Your task to perform on an android device: When is my next appointment? Image 0: 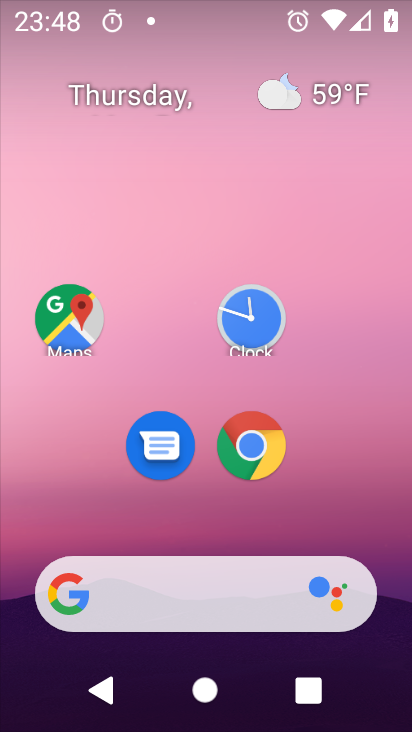
Step 0: drag from (236, 575) to (206, 0)
Your task to perform on an android device: When is my next appointment? Image 1: 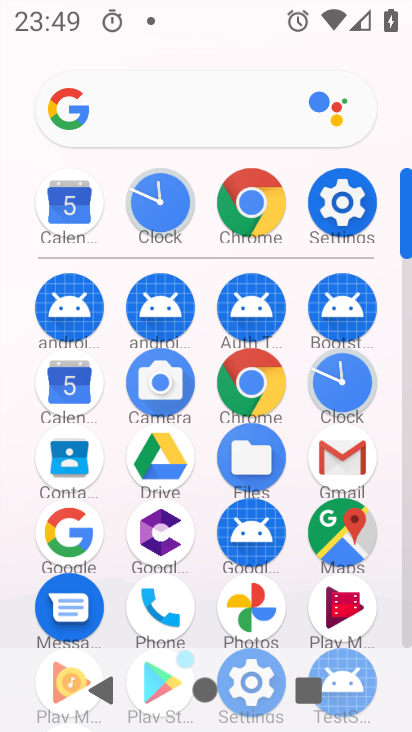
Step 1: click (83, 375)
Your task to perform on an android device: When is my next appointment? Image 2: 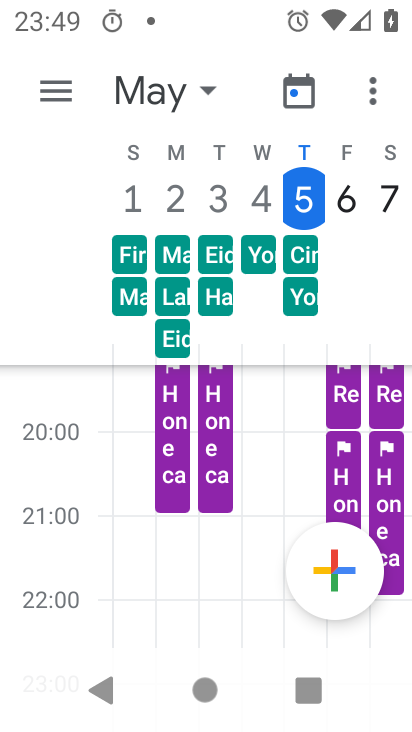
Step 2: click (71, 94)
Your task to perform on an android device: When is my next appointment? Image 3: 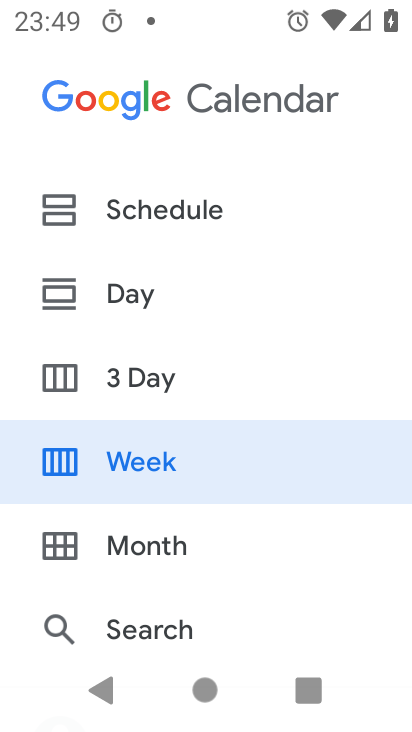
Step 3: click (167, 211)
Your task to perform on an android device: When is my next appointment? Image 4: 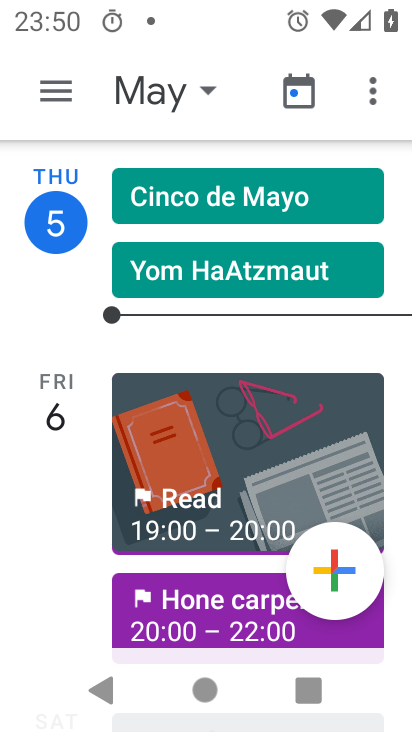
Step 4: task complete